Your task to perform on an android device: turn off wifi Image 0: 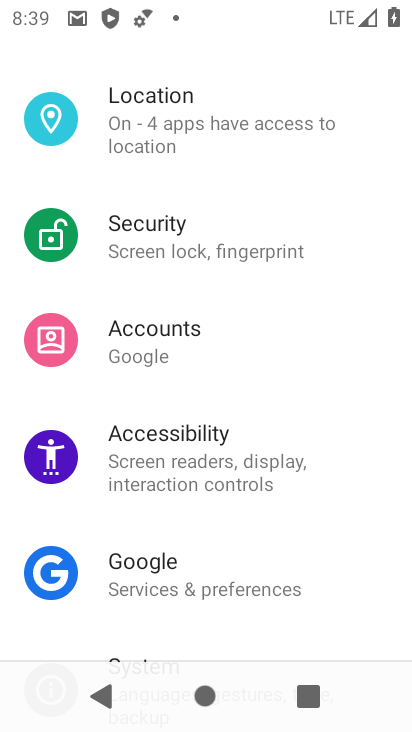
Step 0: press back button
Your task to perform on an android device: turn off wifi Image 1: 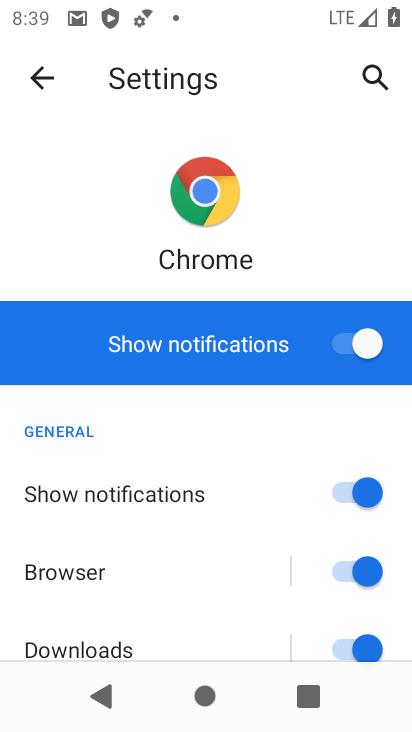
Step 1: task complete